Your task to perform on an android device: Go to wifi settings Image 0: 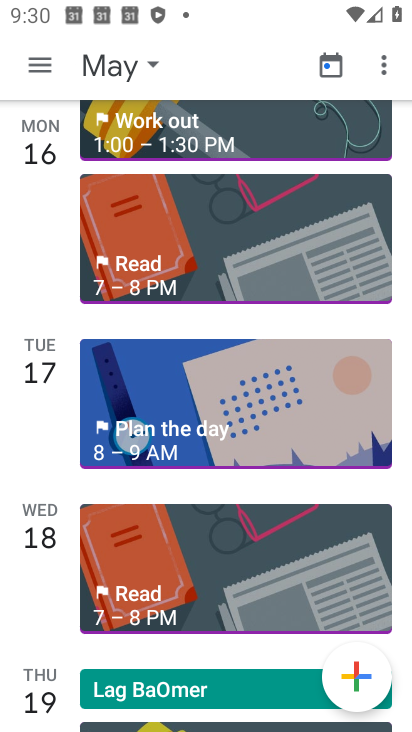
Step 0: press home button
Your task to perform on an android device: Go to wifi settings Image 1: 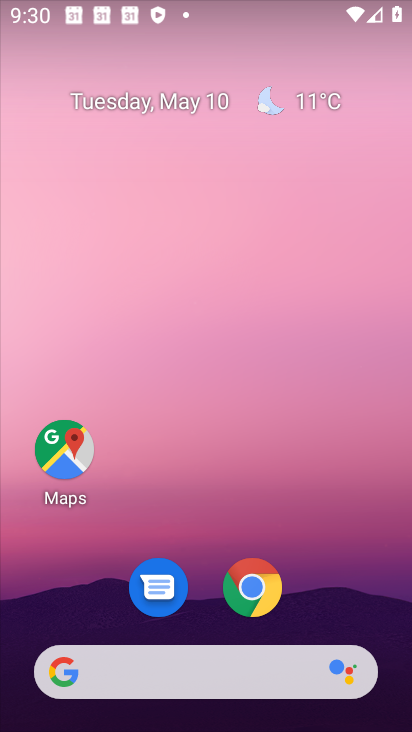
Step 1: drag from (373, 599) to (347, 243)
Your task to perform on an android device: Go to wifi settings Image 2: 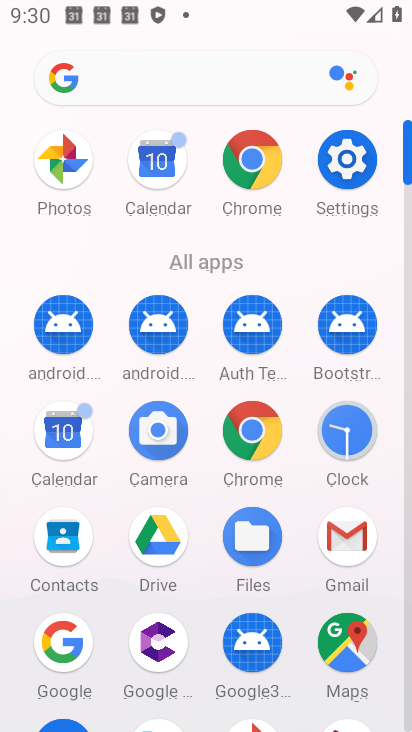
Step 2: click (345, 173)
Your task to perform on an android device: Go to wifi settings Image 3: 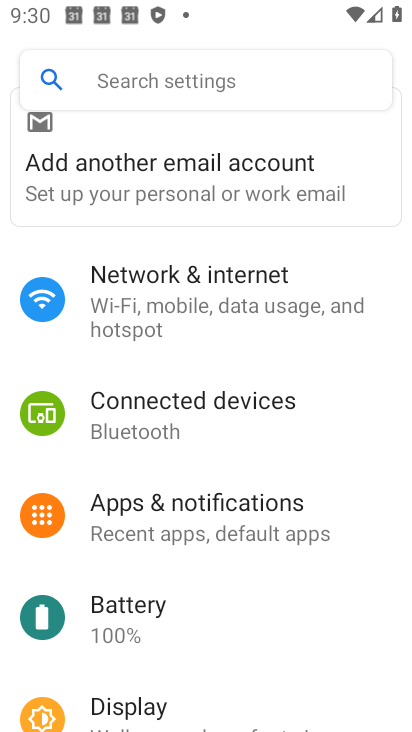
Step 3: click (168, 310)
Your task to perform on an android device: Go to wifi settings Image 4: 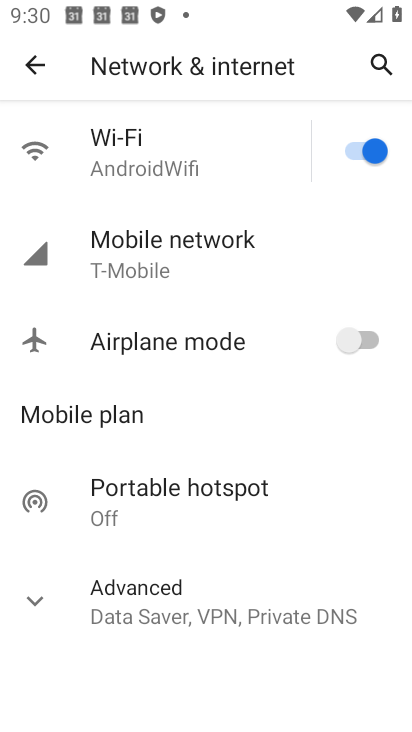
Step 4: click (150, 159)
Your task to perform on an android device: Go to wifi settings Image 5: 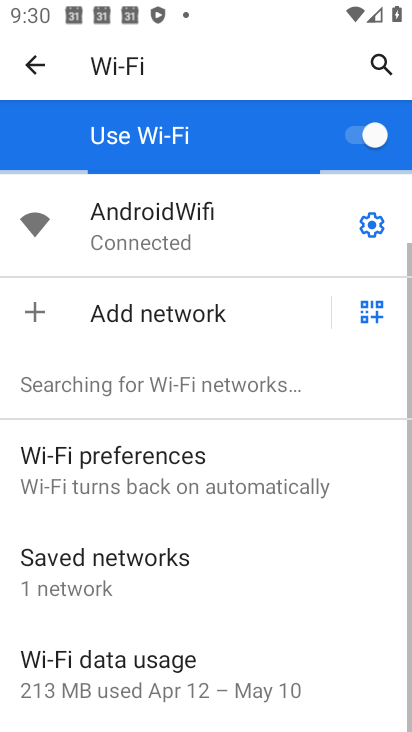
Step 5: click (377, 231)
Your task to perform on an android device: Go to wifi settings Image 6: 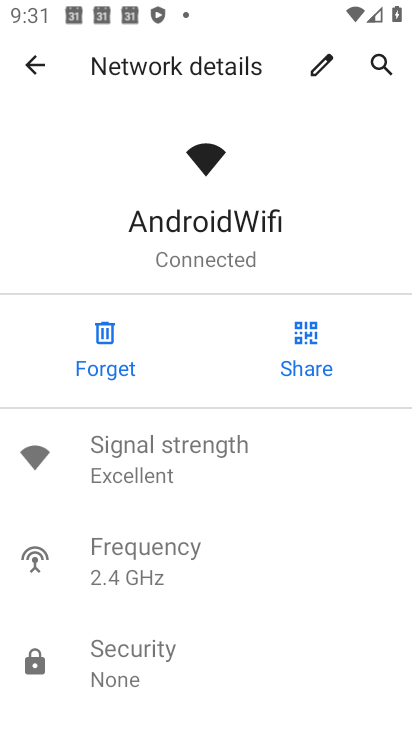
Step 6: task complete